Your task to perform on an android device: set an alarm Image 0: 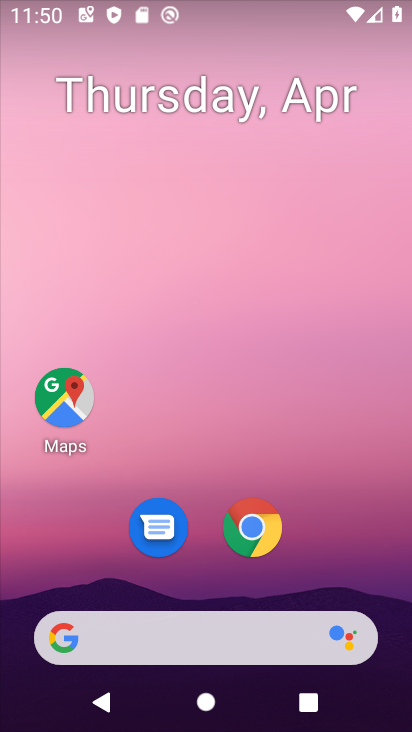
Step 0: drag from (219, 590) to (220, 182)
Your task to perform on an android device: set an alarm Image 1: 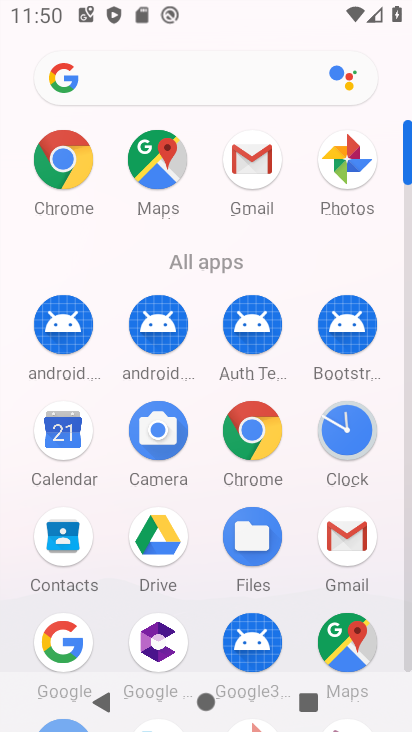
Step 1: click (332, 433)
Your task to perform on an android device: set an alarm Image 2: 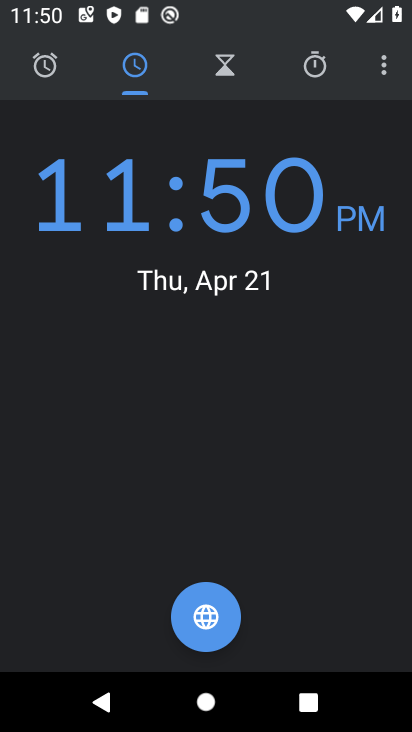
Step 2: click (51, 63)
Your task to perform on an android device: set an alarm Image 3: 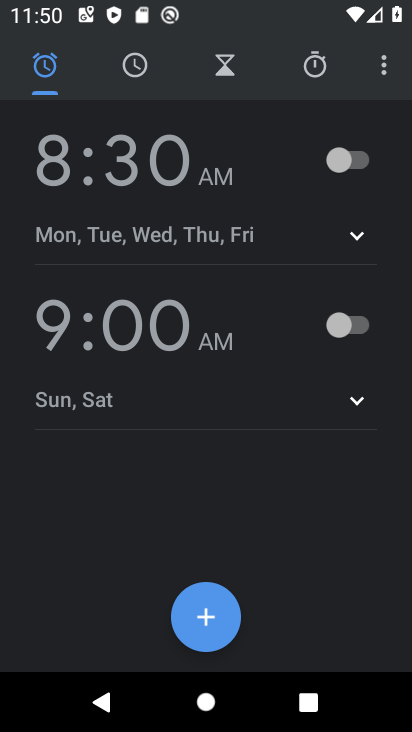
Step 3: click (351, 166)
Your task to perform on an android device: set an alarm Image 4: 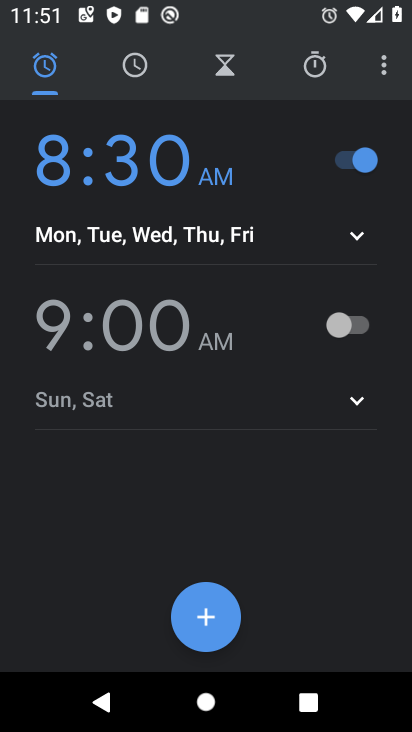
Step 4: task complete